Your task to perform on an android device: turn on location history Image 0: 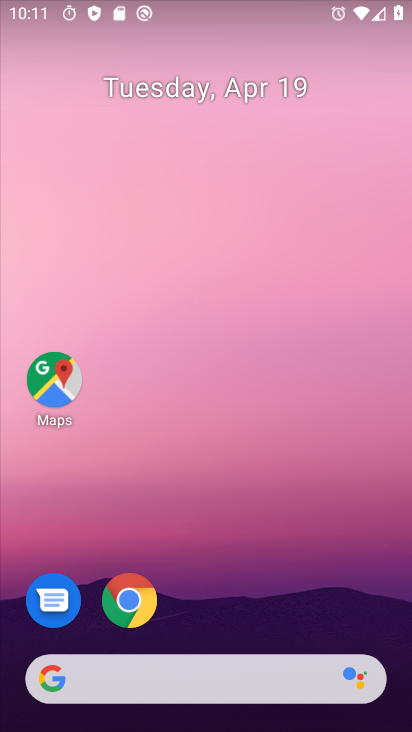
Step 0: drag from (194, 628) to (335, 9)
Your task to perform on an android device: turn on location history Image 1: 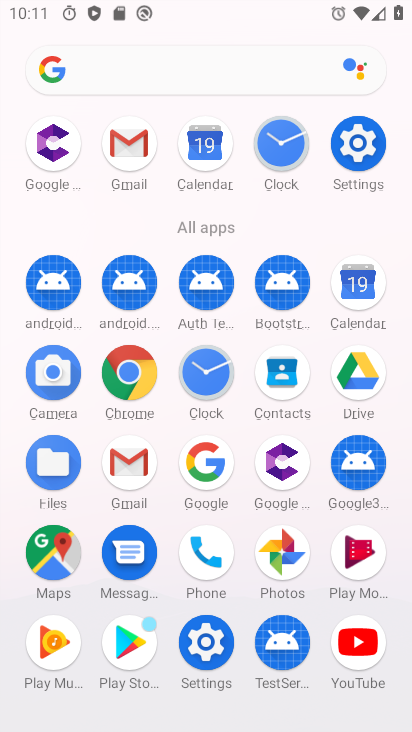
Step 1: click (355, 146)
Your task to perform on an android device: turn on location history Image 2: 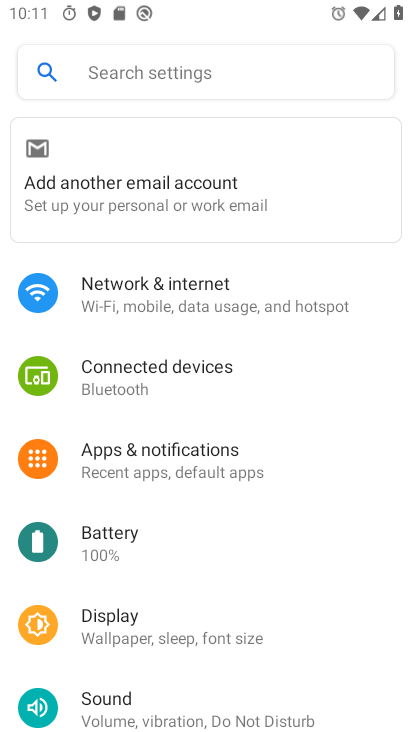
Step 2: drag from (153, 646) to (244, 143)
Your task to perform on an android device: turn on location history Image 3: 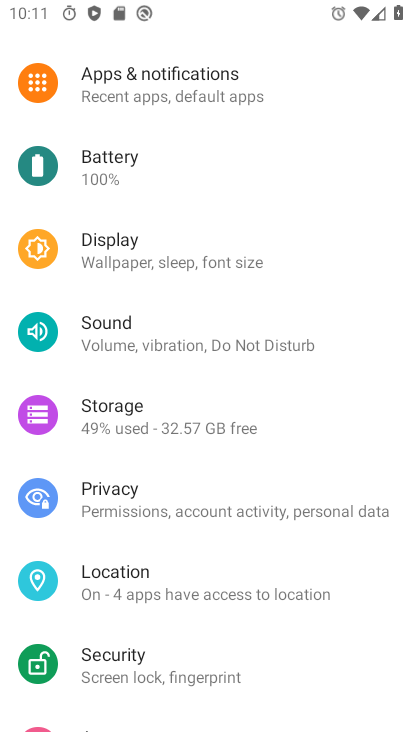
Step 3: click (128, 579)
Your task to perform on an android device: turn on location history Image 4: 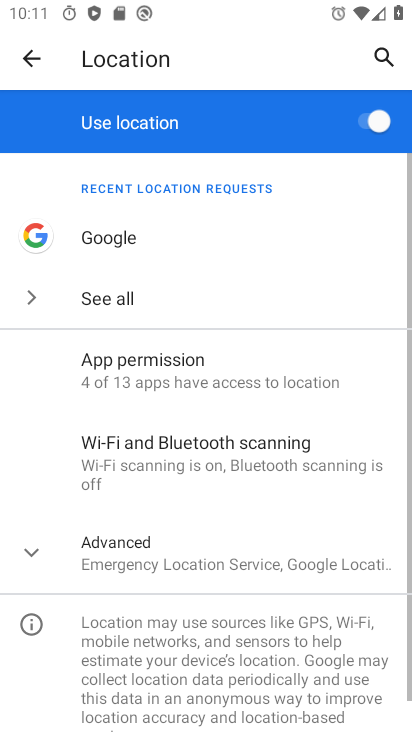
Step 4: click (158, 568)
Your task to perform on an android device: turn on location history Image 5: 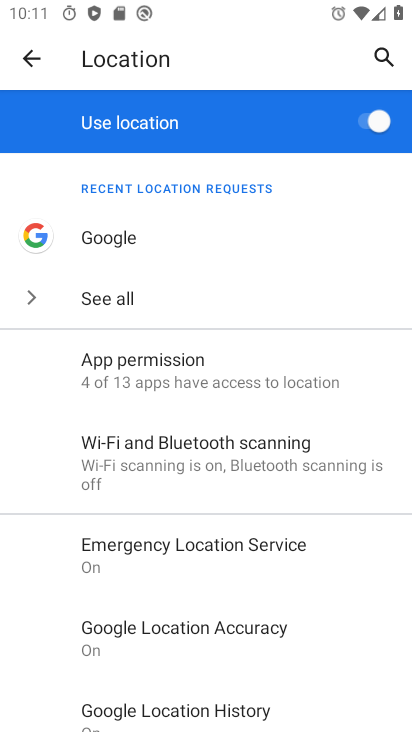
Step 5: click (192, 718)
Your task to perform on an android device: turn on location history Image 6: 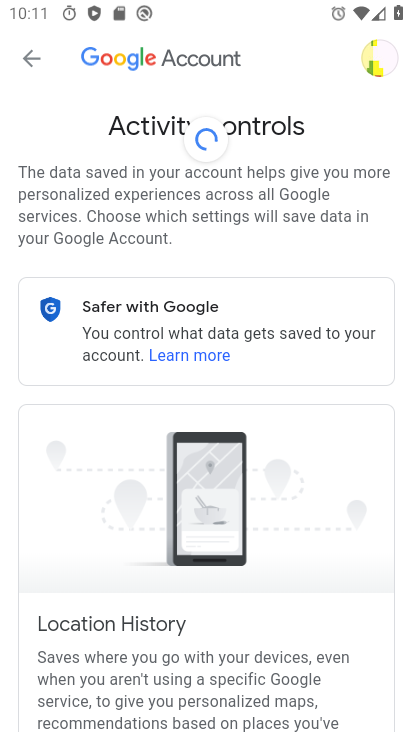
Step 6: drag from (193, 472) to (321, 5)
Your task to perform on an android device: turn on location history Image 7: 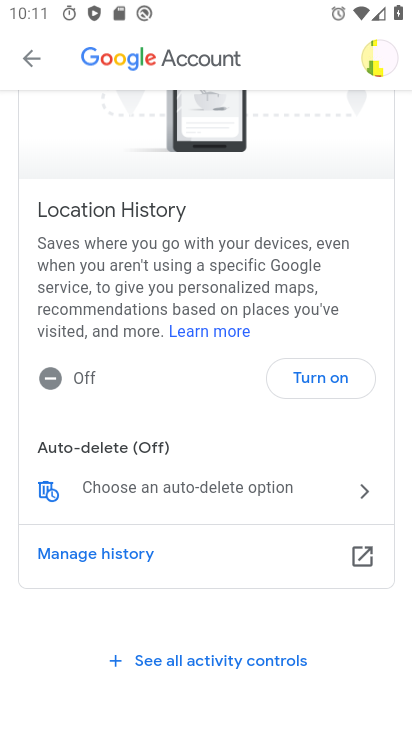
Step 7: click (315, 375)
Your task to perform on an android device: turn on location history Image 8: 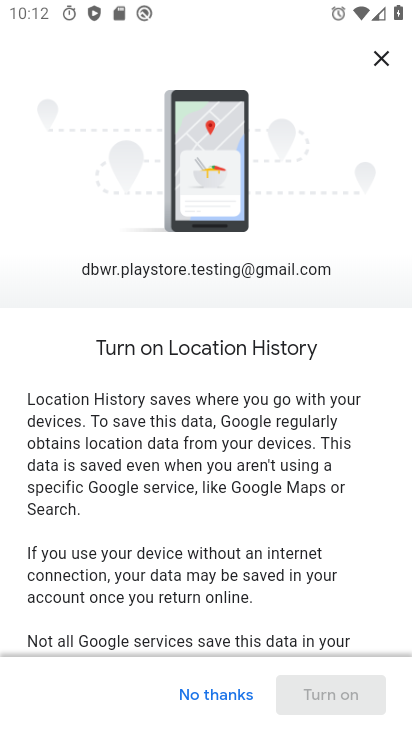
Step 8: drag from (266, 551) to (346, 47)
Your task to perform on an android device: turn on location history Image 9: 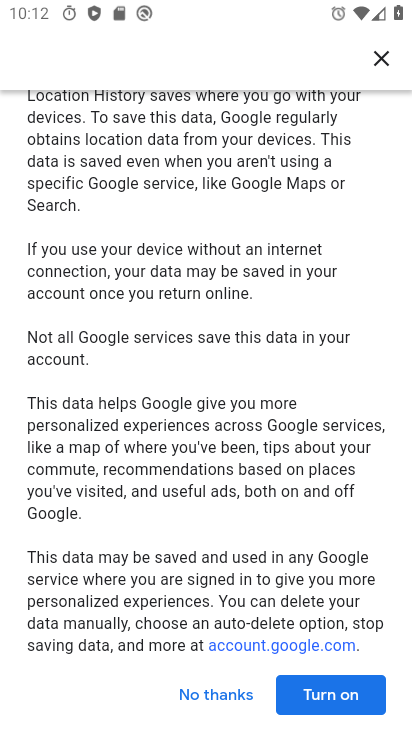
Step 9: drag from (239, 557) to (359, 181)
Your task to perform on an android device: turn on location history Image 10: 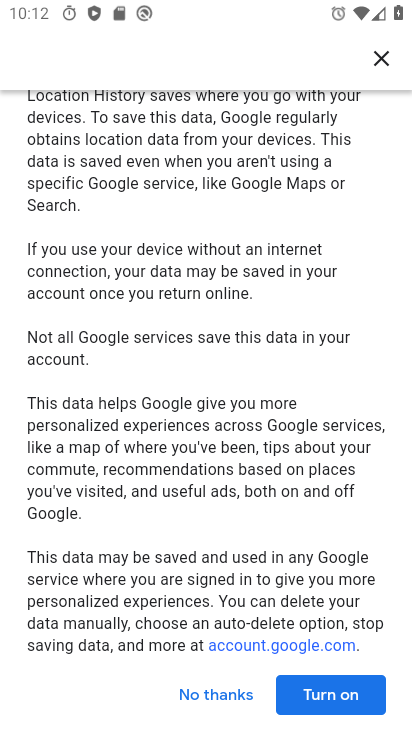
Step 10: click (343, 687)
Your task to perform on an android device: turn on location history Image 11: 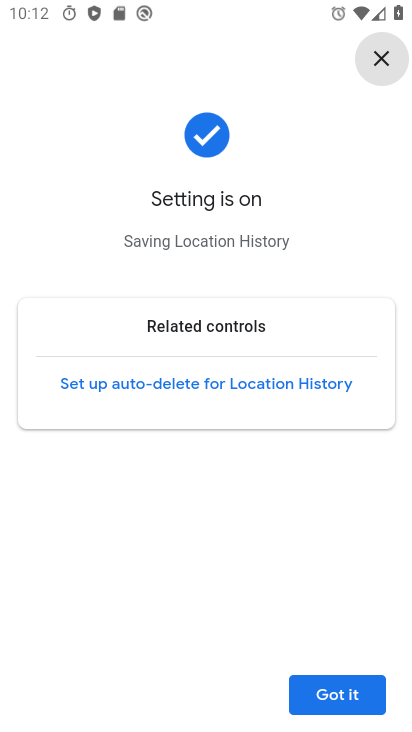
Step 11: click (317, 700)
Your task to perform on an android device: turn on location history Image 12: 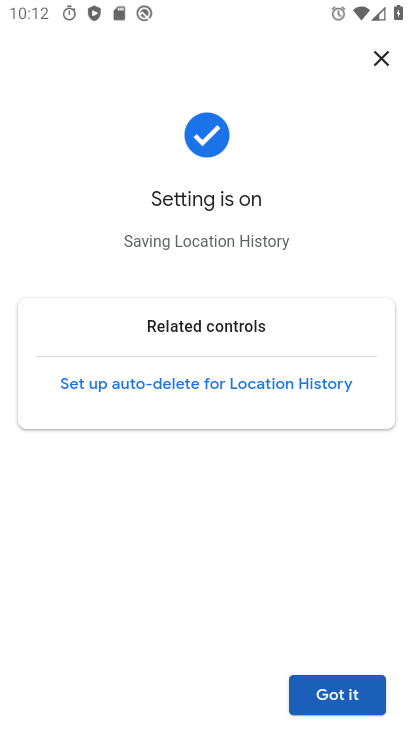
Step 12: click (345, 704)
Your task to perform on an android device: turn on location history Image 13: 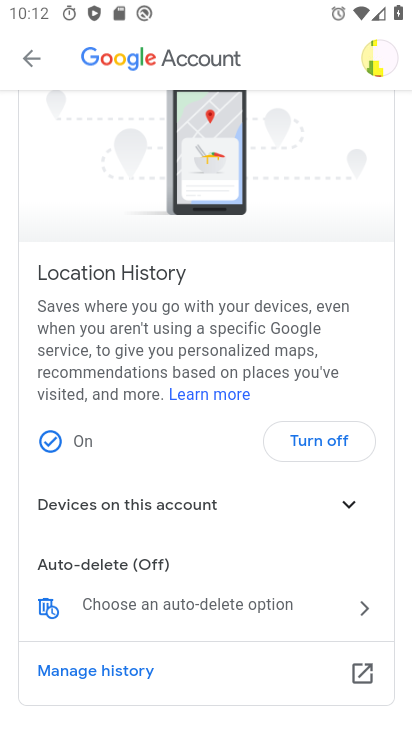
Step 13: task complete